Your task to perform on an android device: create a new album in the google photos Image 0: 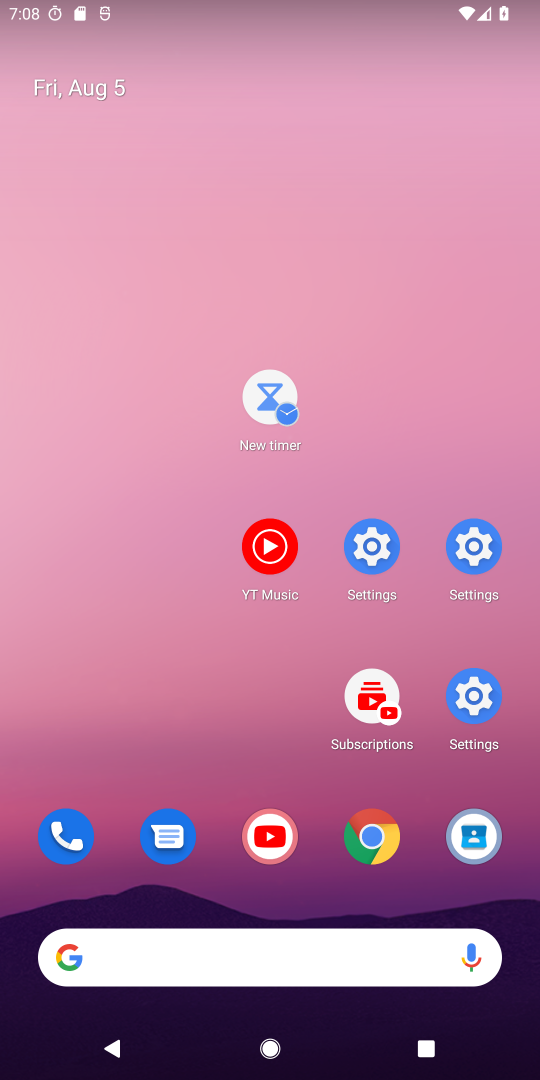
Step 0: click (238, 0)
Your task to perform on an android device: create a new album in the google photos Image 1: 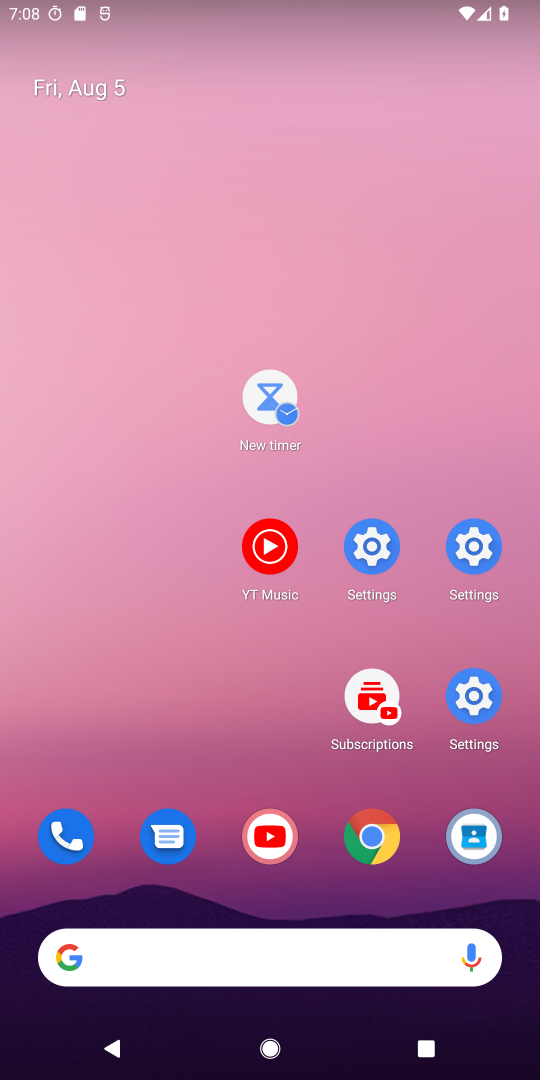
Step 1: drag from (182, 11) to (276, 103)
Your task to perform on an android device: create a new album in the google photos Image 2: 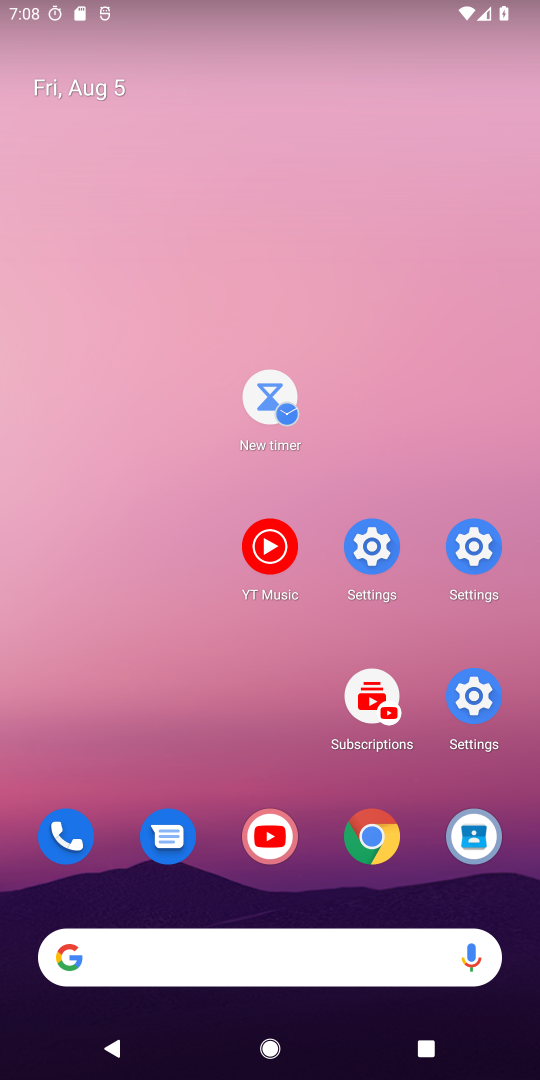
Step 2: click (263, 163)
Your task to perform on an android device: create a new album in the google photos Image 3: 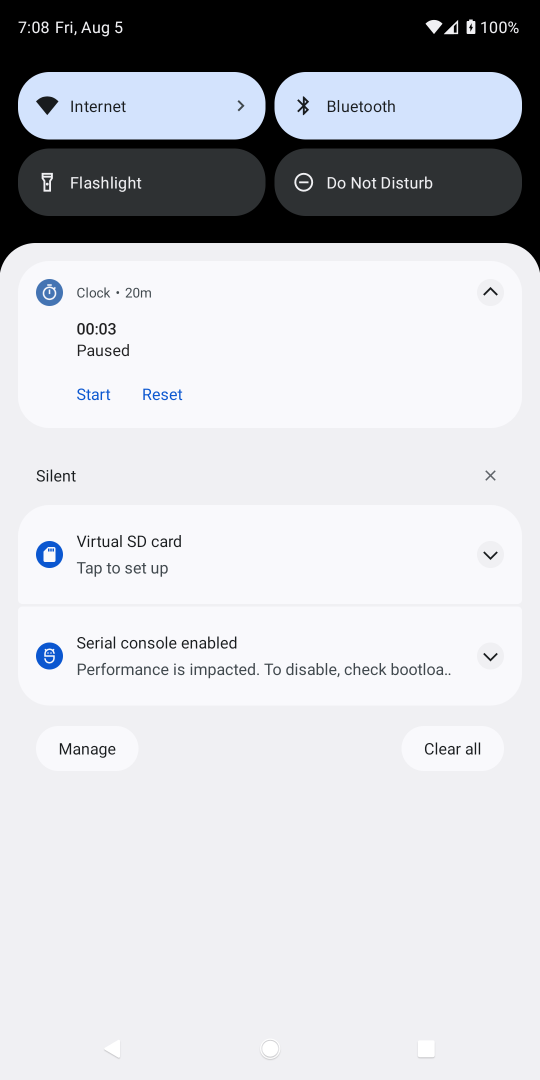
Step 3: press back button
Your task to perform on an android device: create a new album in the google photos Image 4: 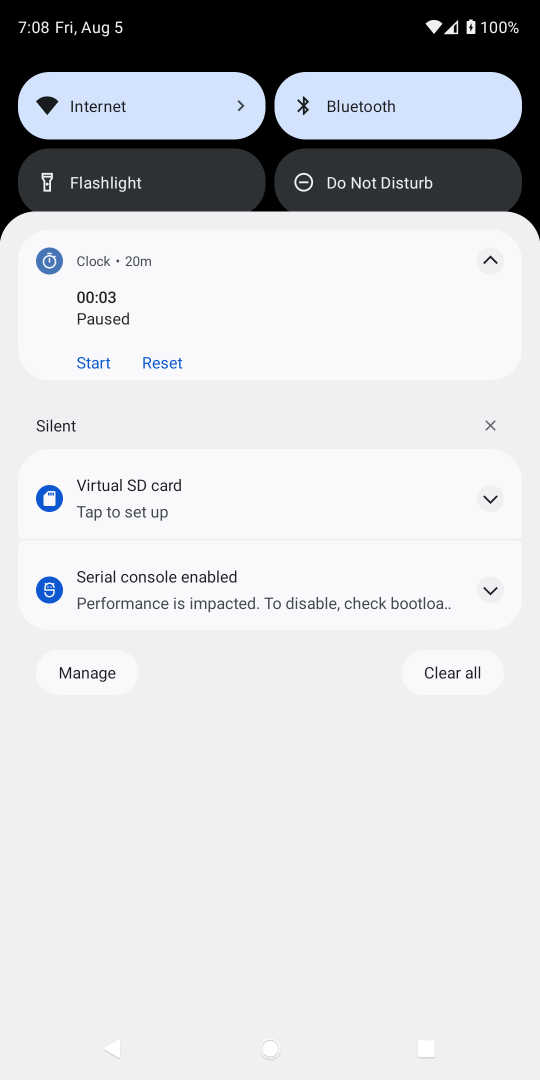
Step 4: press back button
Your task to perform on an android device: create a new album in the google photos Image 5: 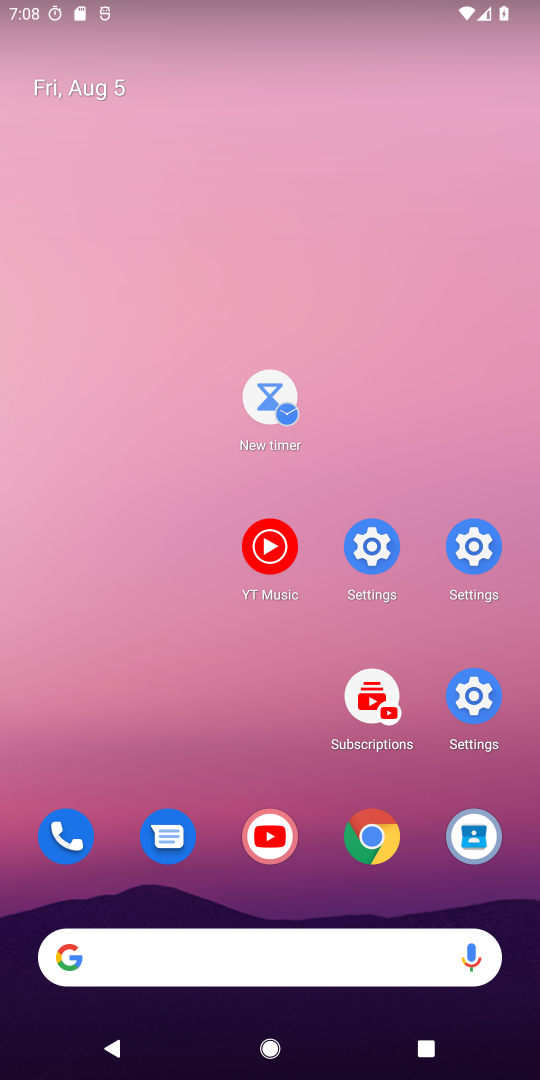
Step 5: click (187, 149)
Your task to perform on an android device: create a new album in the google photos Image 6: 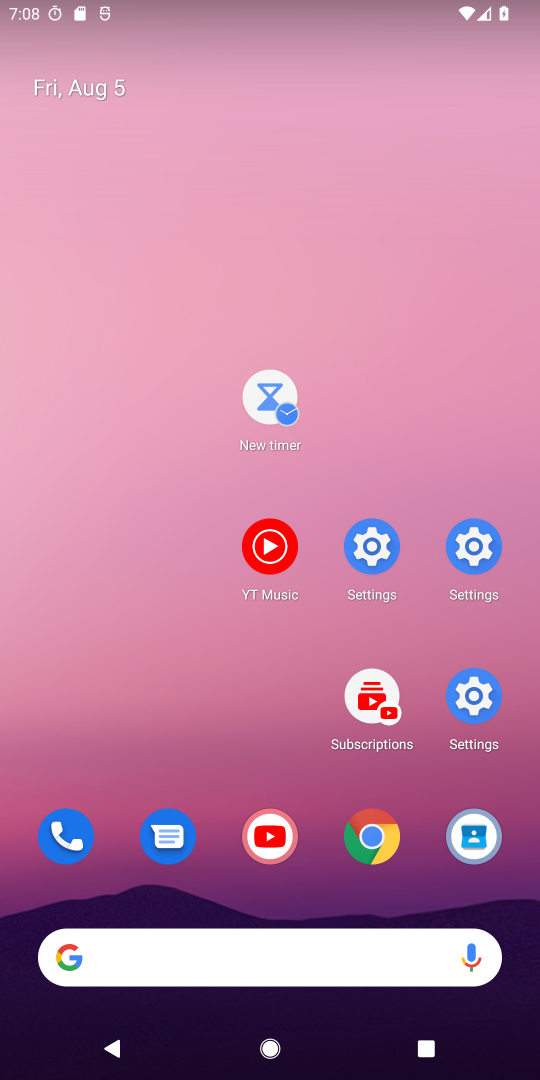
Step 6: click (245, 24)
Your task to perform on an android device: create a new album in the google photos Image 7: 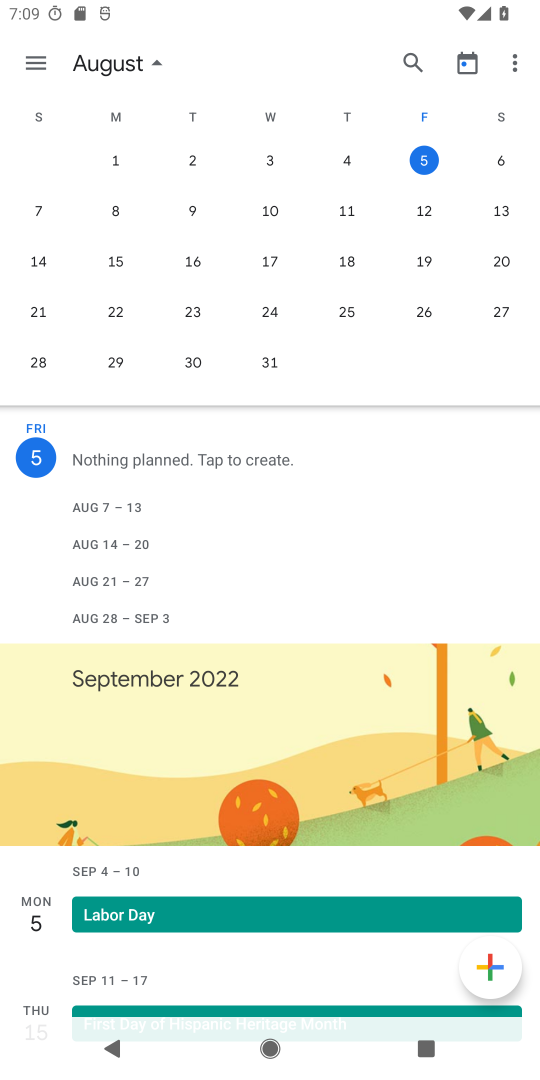
Step 7: press back button
Your task to perform on an android device: create a new album in the google photos Image 8: 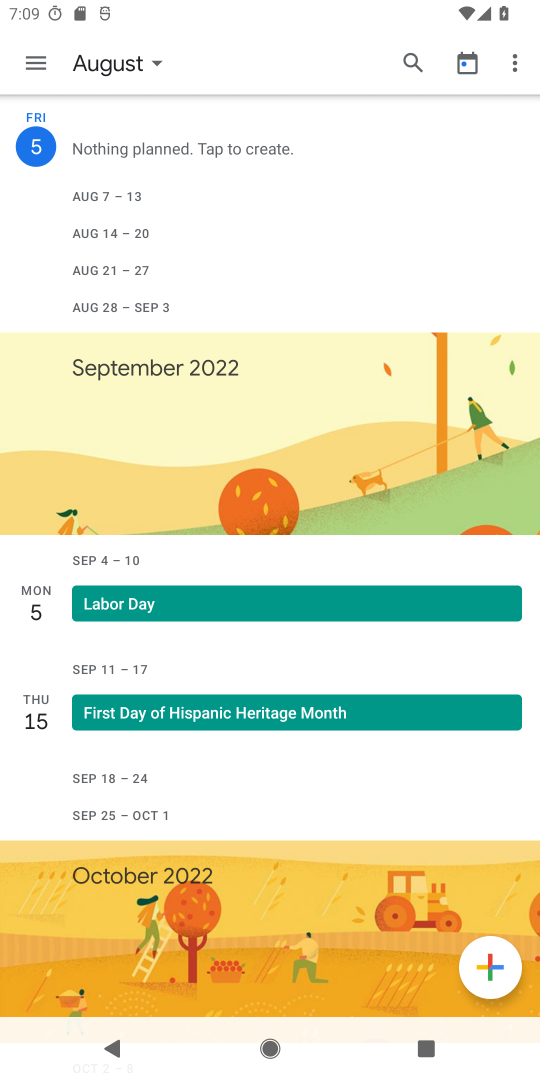
Step 8: press home button
Your task to perform on an android device: create a new album in the google photos Image 9: 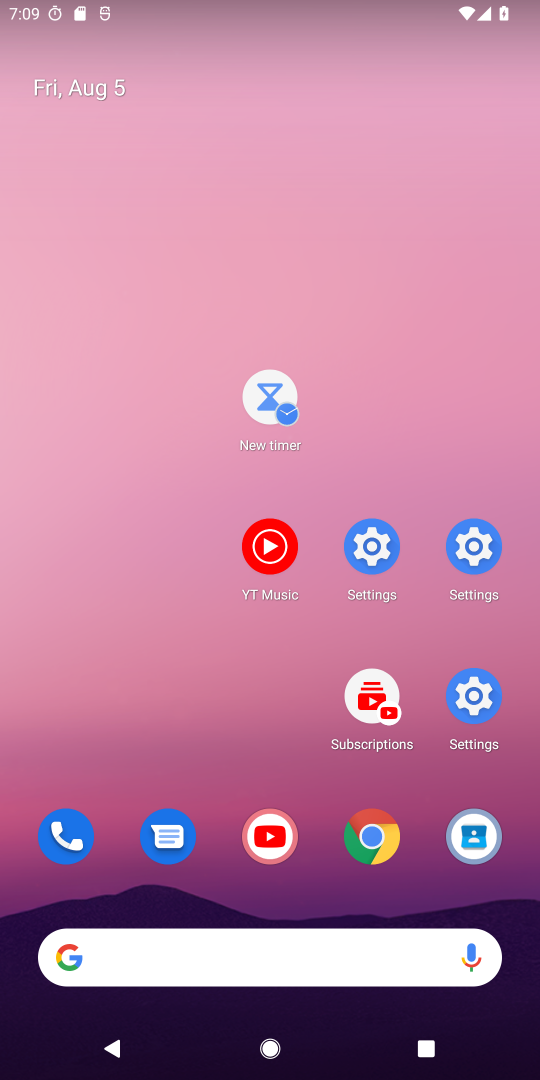
Step 9: press back button
Your task to perform on an android device: create a new album in the google photos Image 10: 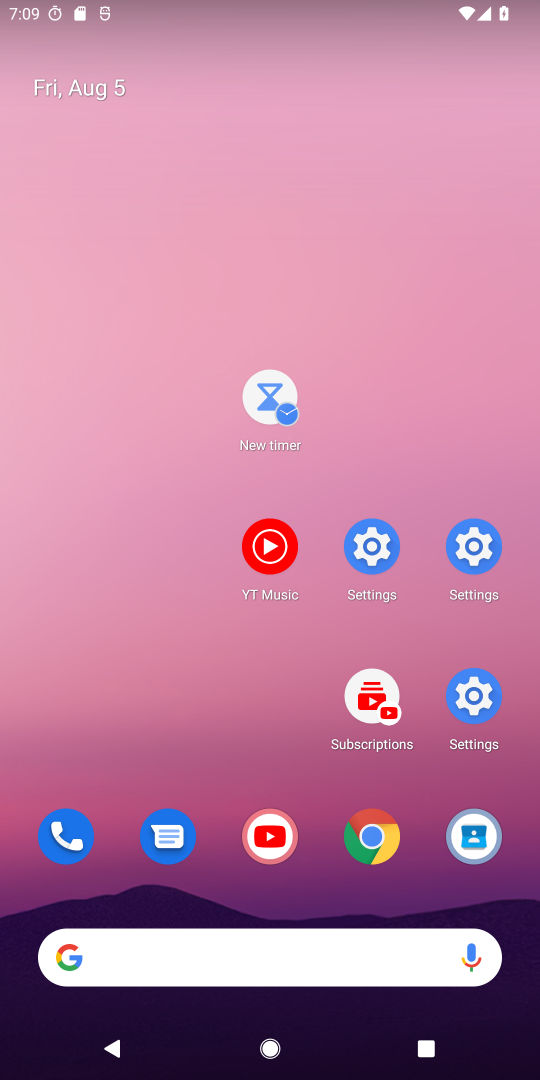
Step 10: drag from (273, 632) to (253, 517)
Your task to perform on an android device: create a new album in the google photos Image 11: 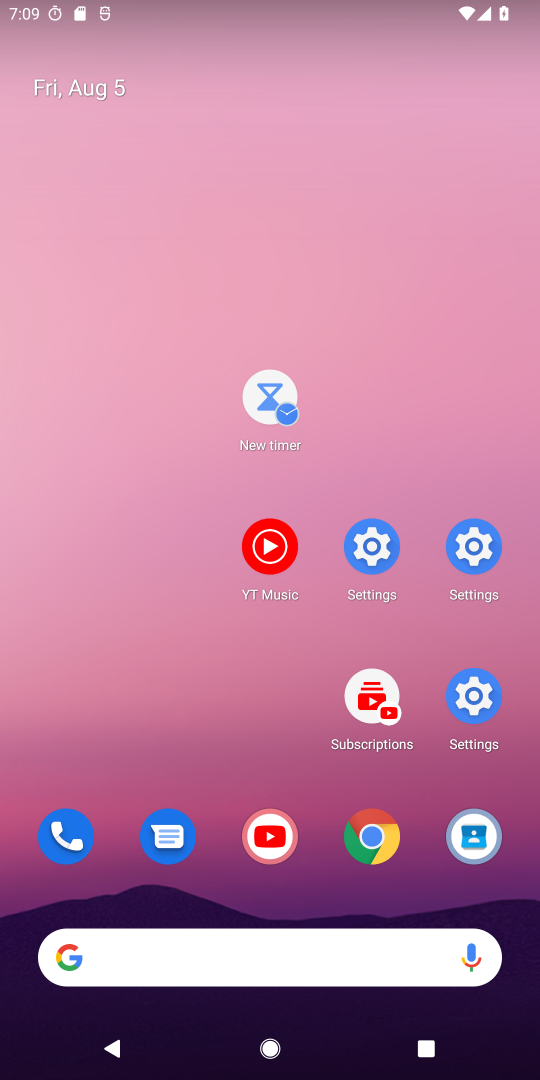
Step 11: drag from (351, 606) to (269, 220)
Your task to perform on an android device: create a new album in the google photos Image 12: 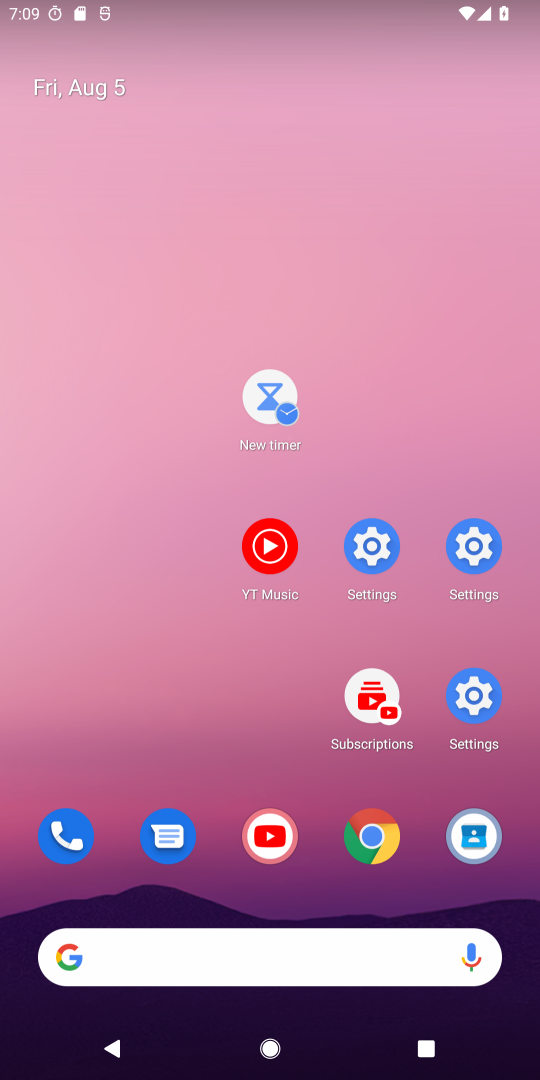
Step 12: drag from (262, 622) to (235, 107)
Your task to perform on an android device: create a new album in the google photos Image 13: 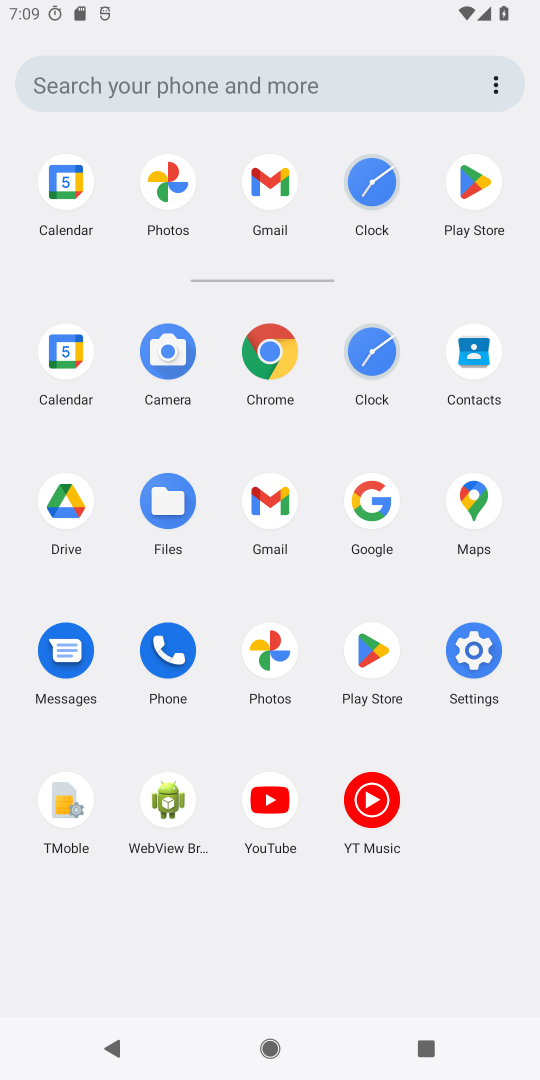
Step 13: drag from (383, 616) to (263, 120)
Your task to perform on an android device: create a new album in the google photos Image 14: 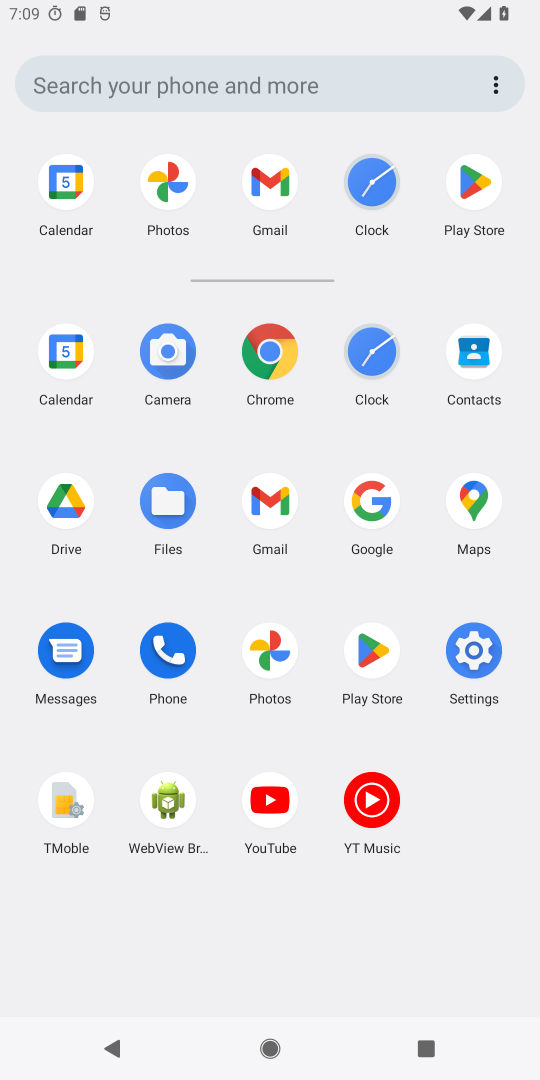
Step 14: click (265, 662)
Your task to perform on an android device: create a new album in the google photos Image 15: 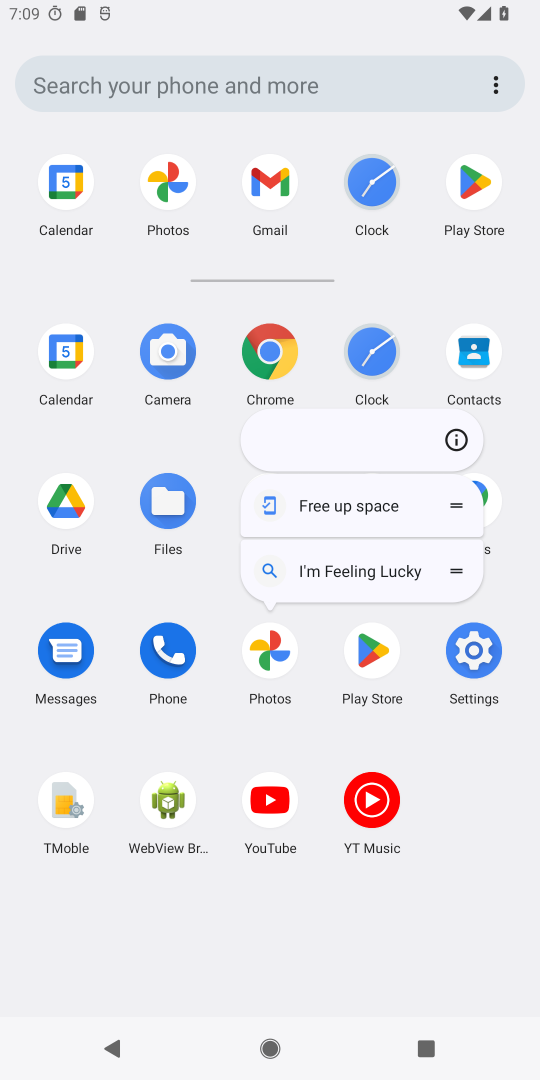
Step 15: click (241, 635)
Your task to perform on an android device: create a new album in the google photos Image 16: 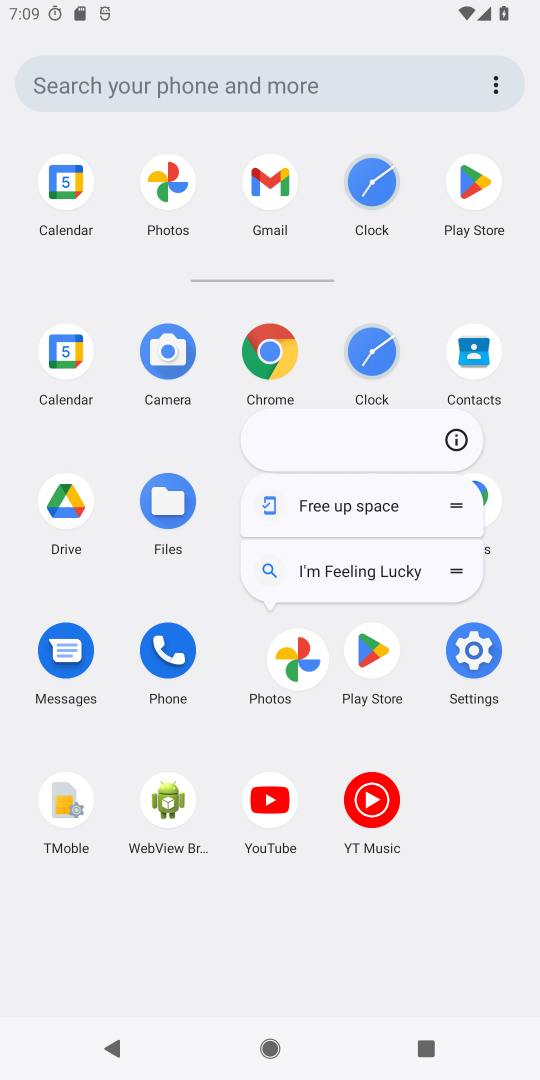
Step 16: click (270, 644)
Your task to perform on an android device: create a new album in the google photos Image 17: 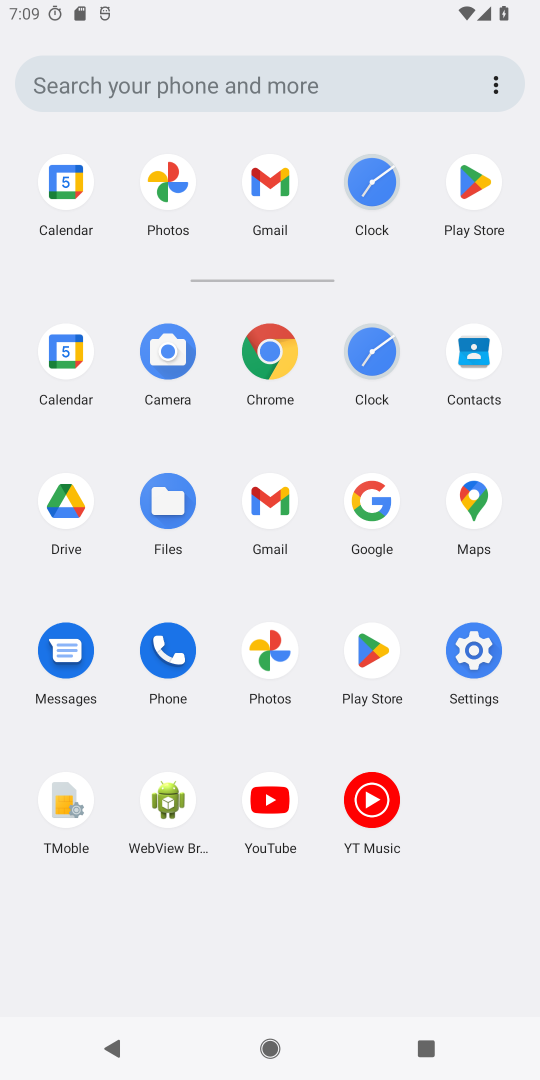
Step 17: click (272, 644)
Your task to perform on an android device: create a new album in the google photos Image 18: 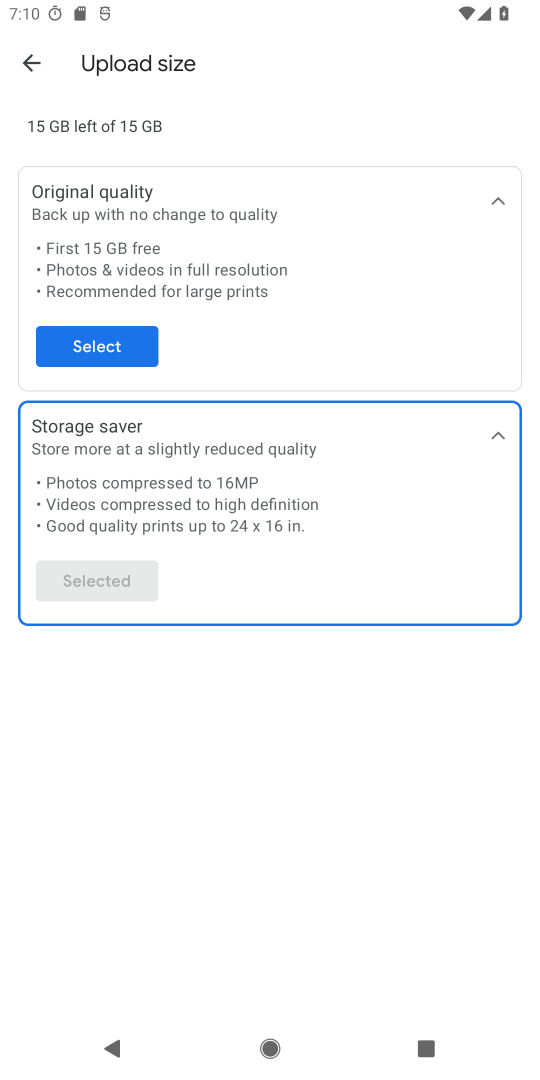
Step 18: click (31, 60)
Your task to perform on an android device: create a new album in the google photos Image 19: 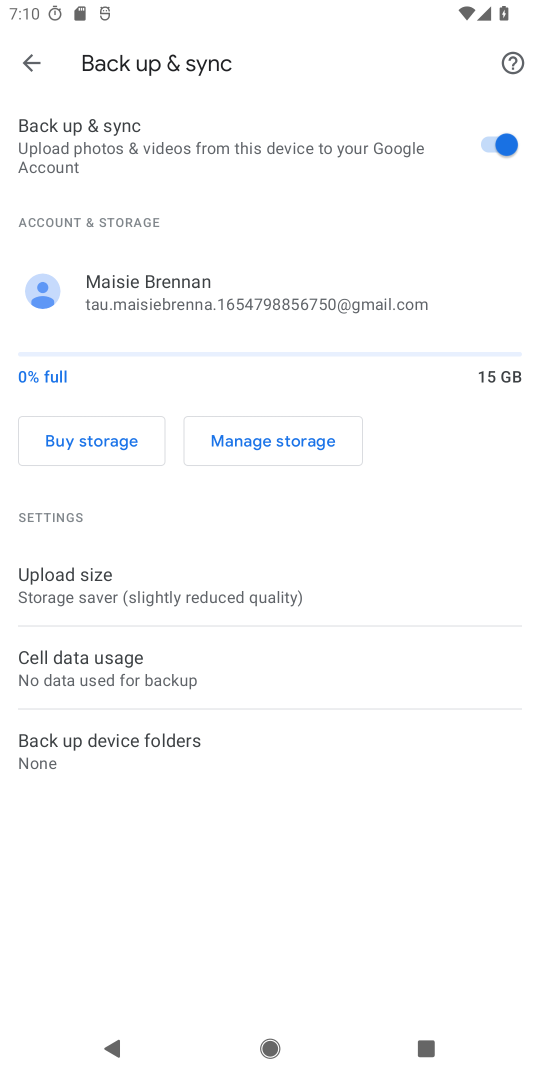
Step 19: click (30, 46)
Your task to perform on an android device: create a new album in the google photos Image 20: 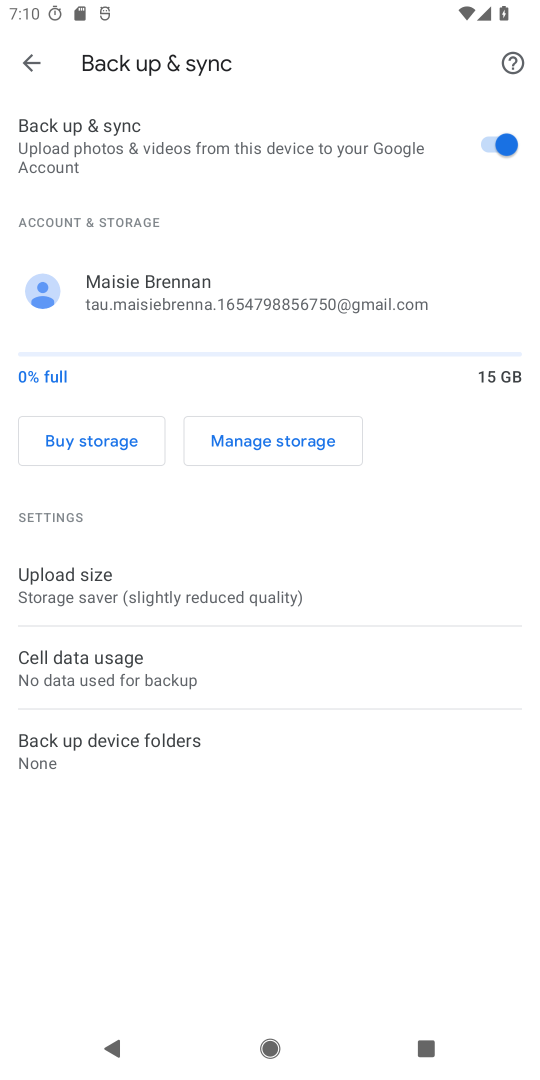
Step 20: click (30, 46)
Your task to perform on an android device: create a new album in the google photos Image 21: 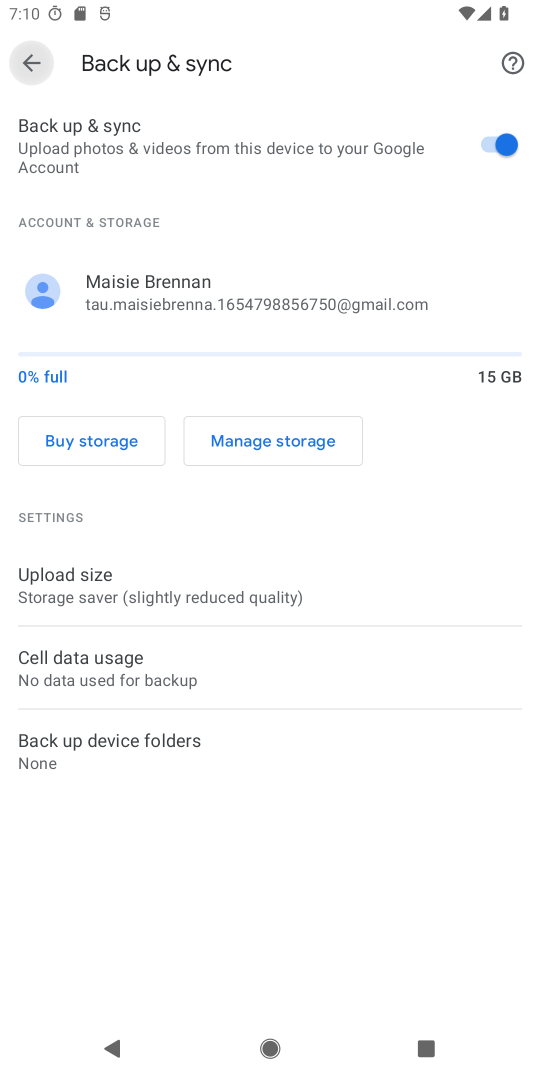
Step 21: click (28, 52)
Your task to perform on an android device: create a new album in the google photos Image 22: 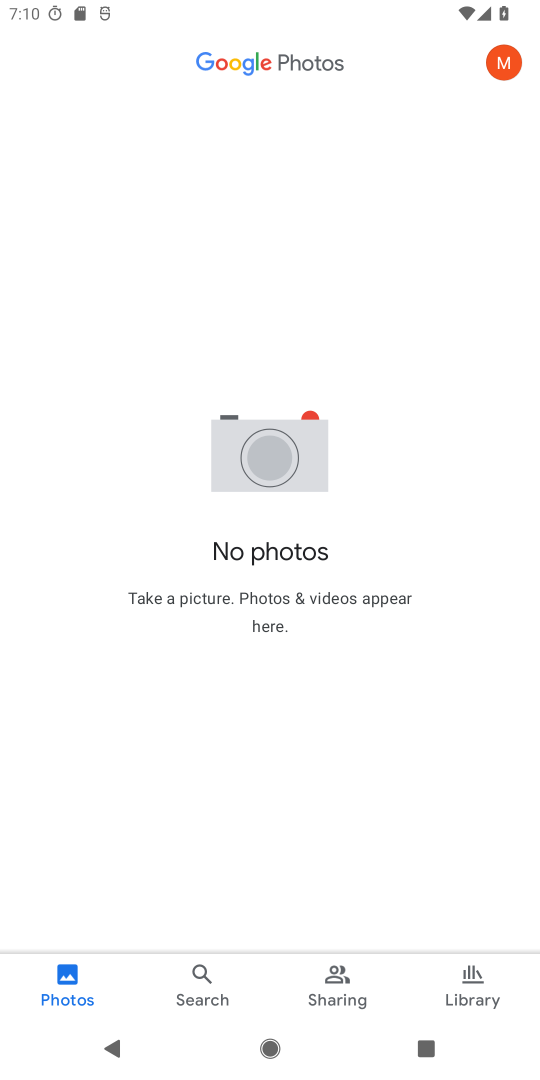
Step 22: click (68, 976)
Your task to perform on an android device: create a new album in the google photos Image 23: 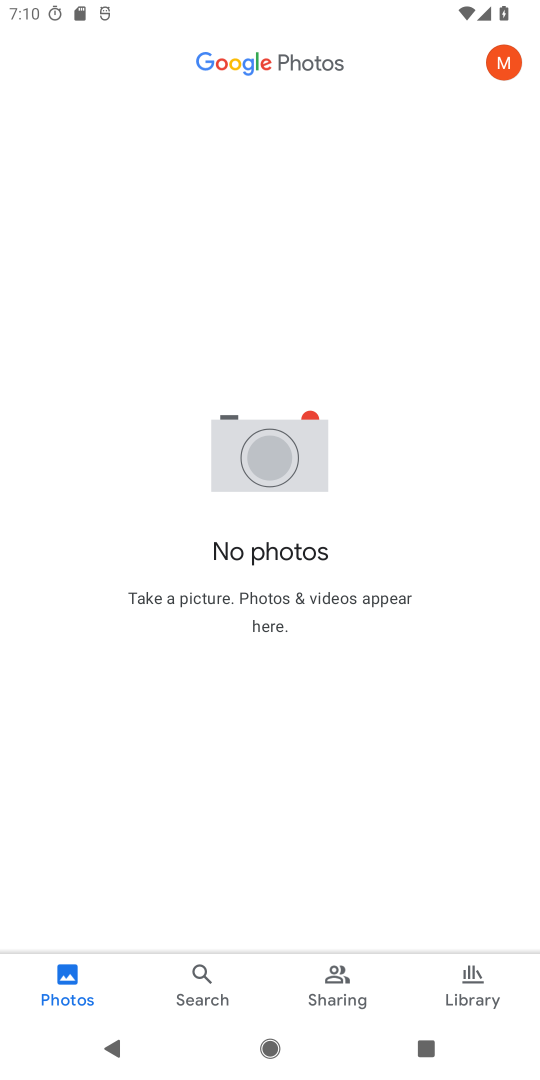
Step 23: task complete